Your task to perform on an android device: Go to location settings Image 0: 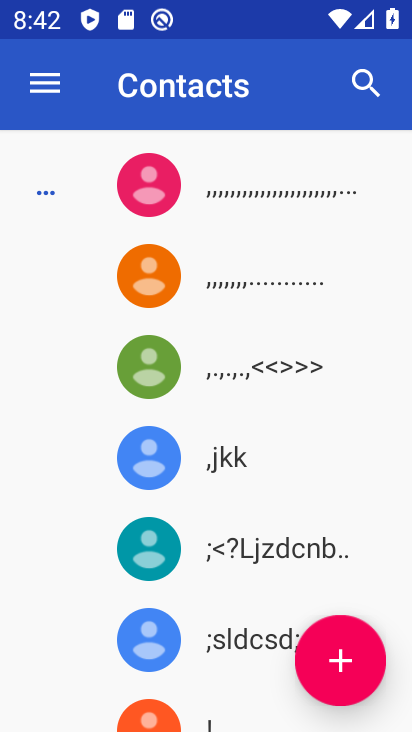
Step 0: press home button
Your task to perform on an android device: Go to location settings Image 1: 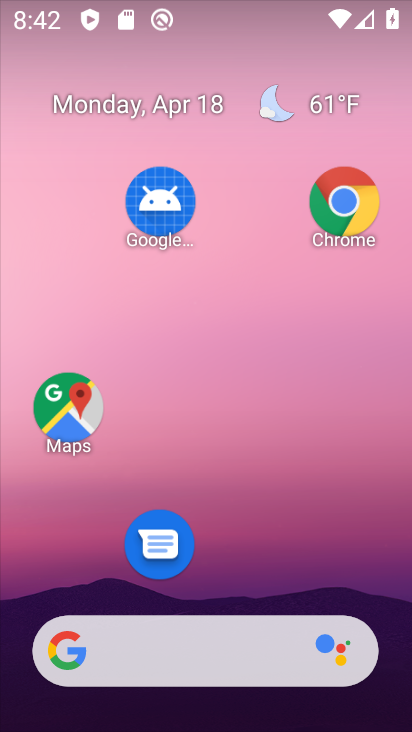
Step 1: drag from (209, 607) to (180, 1)
Your task to perform on an android device: Go to location settings Image 2: 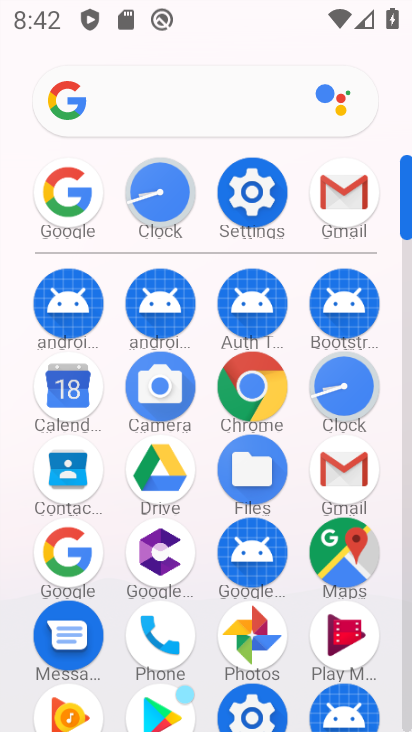
Step 2: click (260, 175)
Your task to perform on an android device: Go to location settings Image 3: 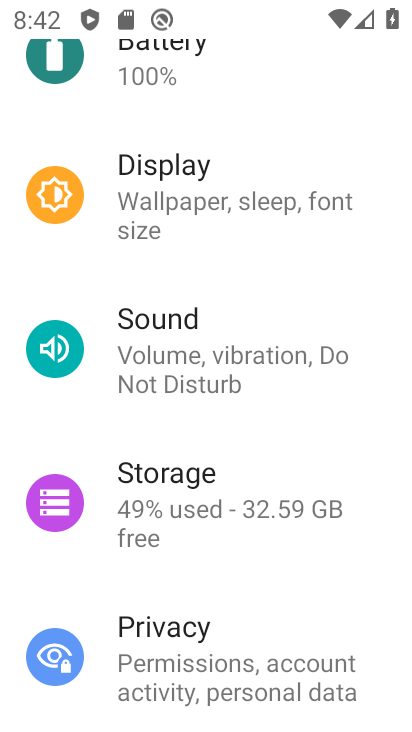
Step 3: drag from (69, 587) to (35, 138)
Your task to perform on an android device: Go to location settings Image 4: 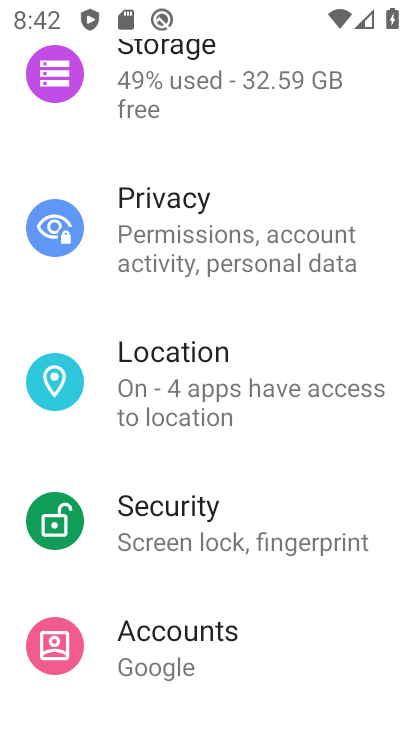
Step 4: click (120, 369)
Your task to perform on an android device: Go to location settings Image 5: 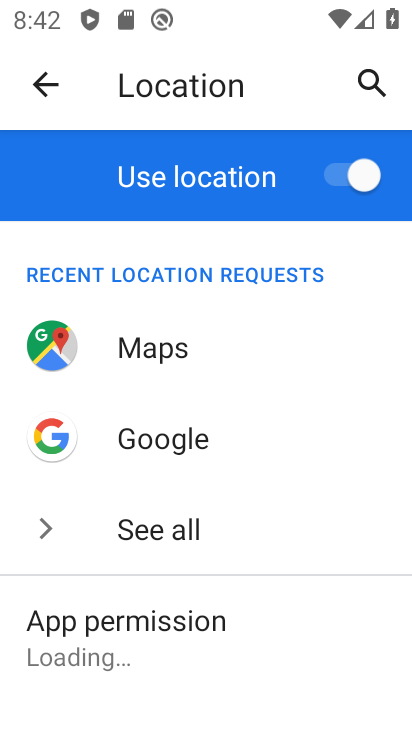
Step 5: drag from (190, 532) to (113, 176)
Your task to perform on an android device: Go to location settings Image 6: 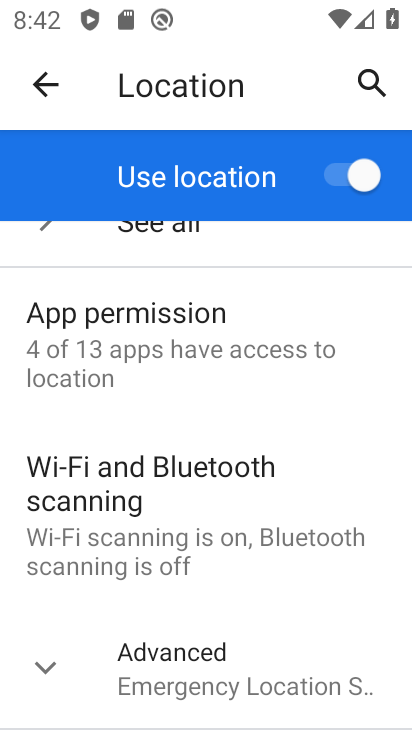
Step 6: click (137, 660)
Your task to perform on an android device: Go to location settings Image 7: 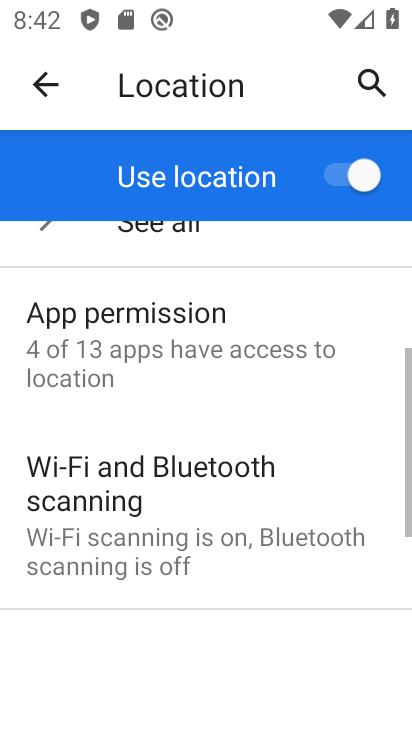
Step 7: task complete